Your task to perform on an android device: turn on sleep mode Image 0: 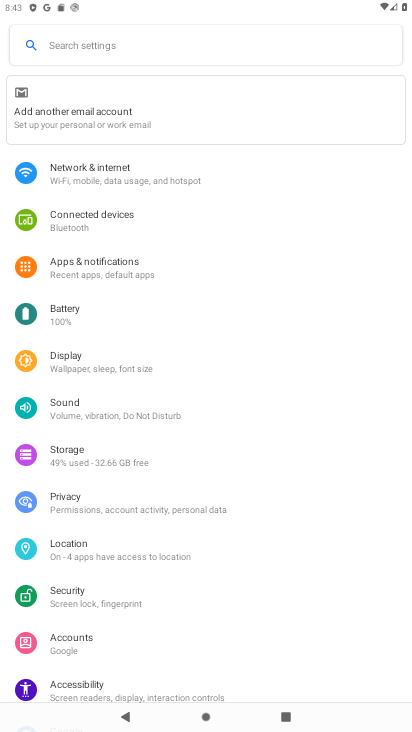
Step 0: drag from (227, 529) to (213, 293)
Your task to perform on an android device: turn on sleep mode Image 1: 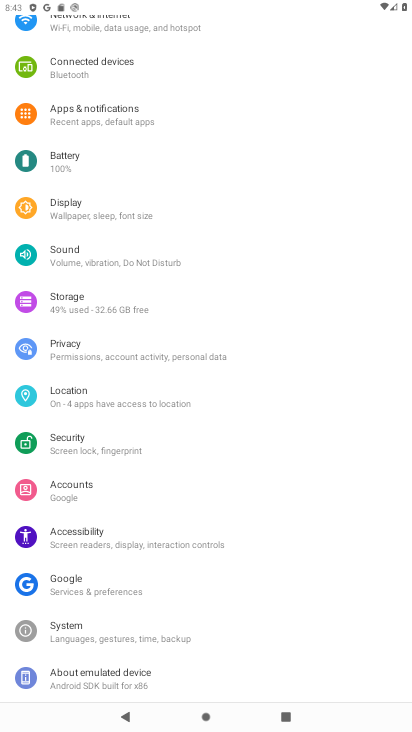
Step 1: click (68, 200)
Your task to perform on an android device: turn on sleep mode Image 2: 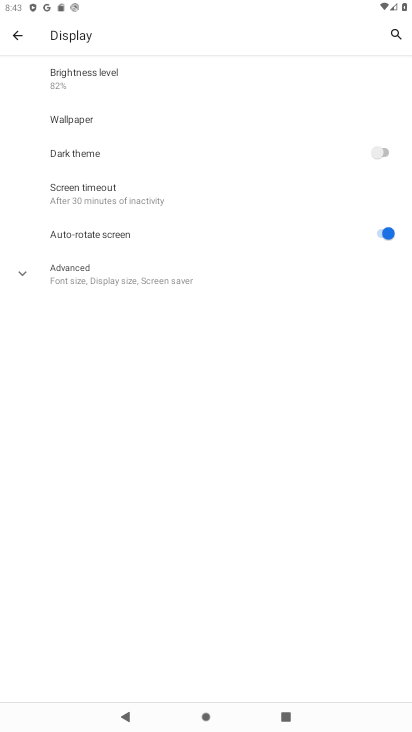
Step 2: task complete